Your task to perform on an android device: open app "Move to iOS" (install if not already installed) and go to login screen Image 0: 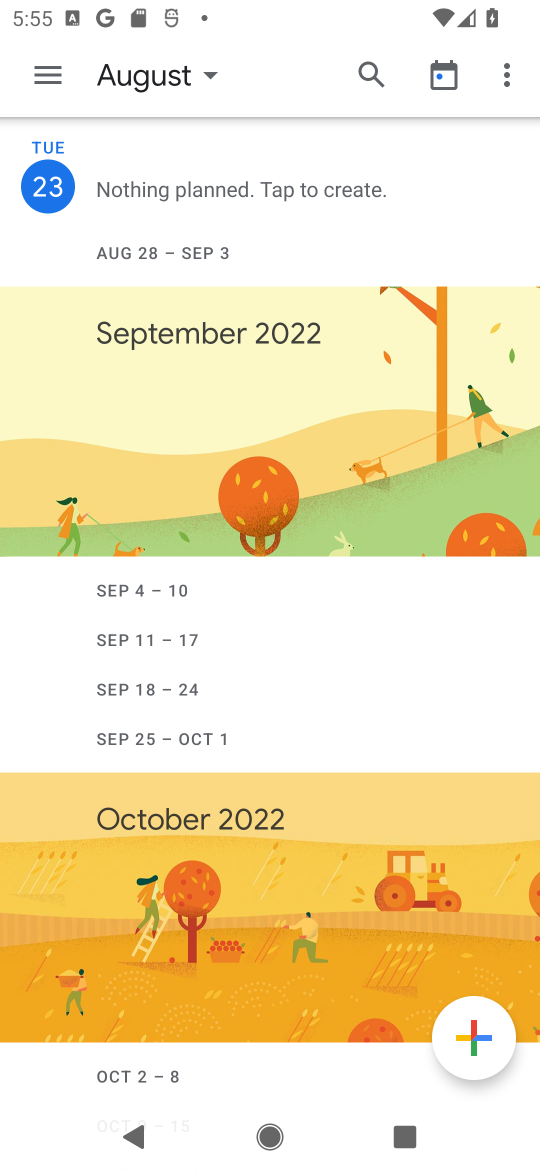
Step 0: press home button
Your task to perform on an android device: open app "Move to iOS" (install if not already installed) and go to login screen Image 1: 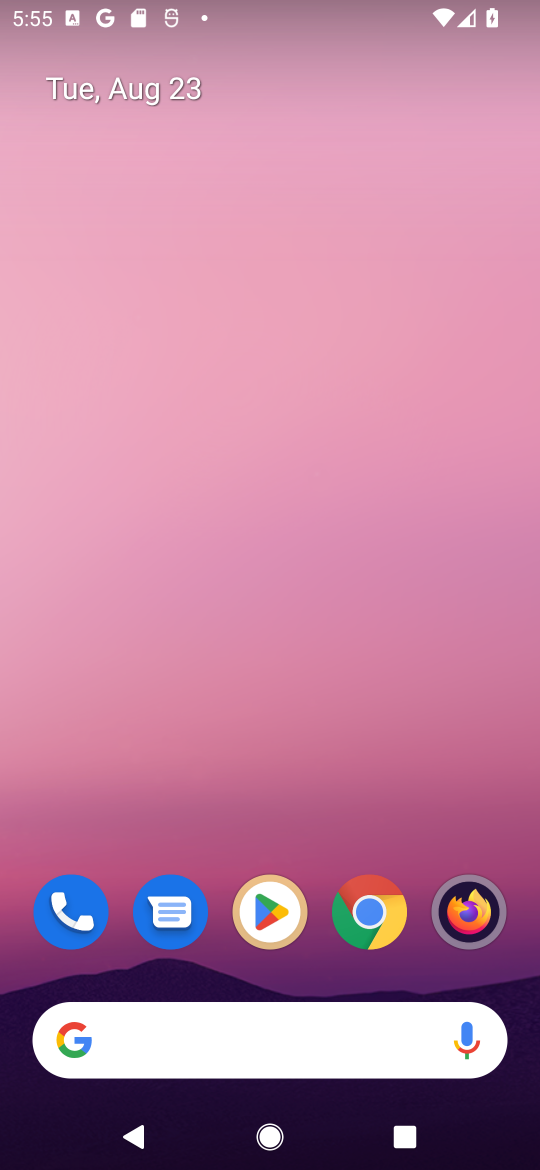
Step 1: click (265, 901)
Your task to perform on an android device: open app "Move to iOS" (install if not already installed) and go to login screen Image 2: 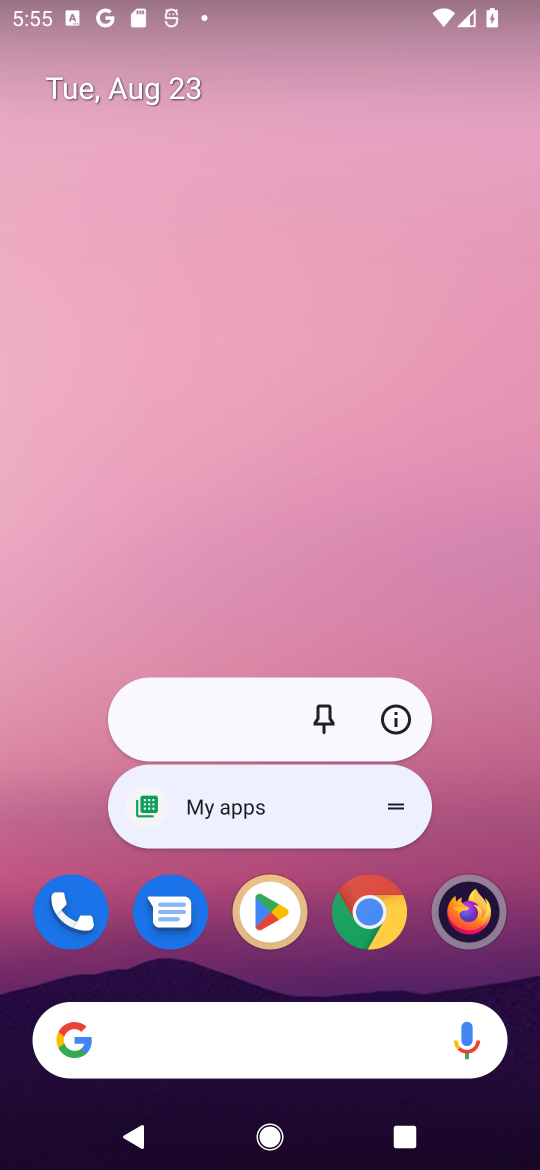
Step 2: click (265, 901)
Your task to perform on an android device: open app "Move to iOS" (install if not already installed) and go to login screen Image 3: 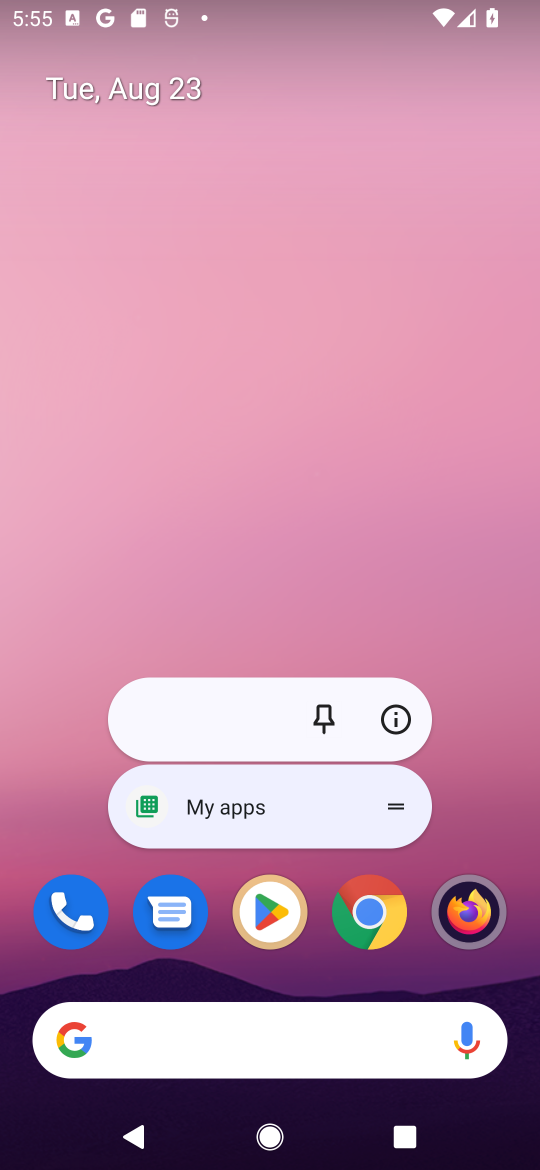
Step 3: click (265, 901)
Your task to perform on an android device: open app "Move to iOS" (install if not already installed) and go to login screen Image 4: 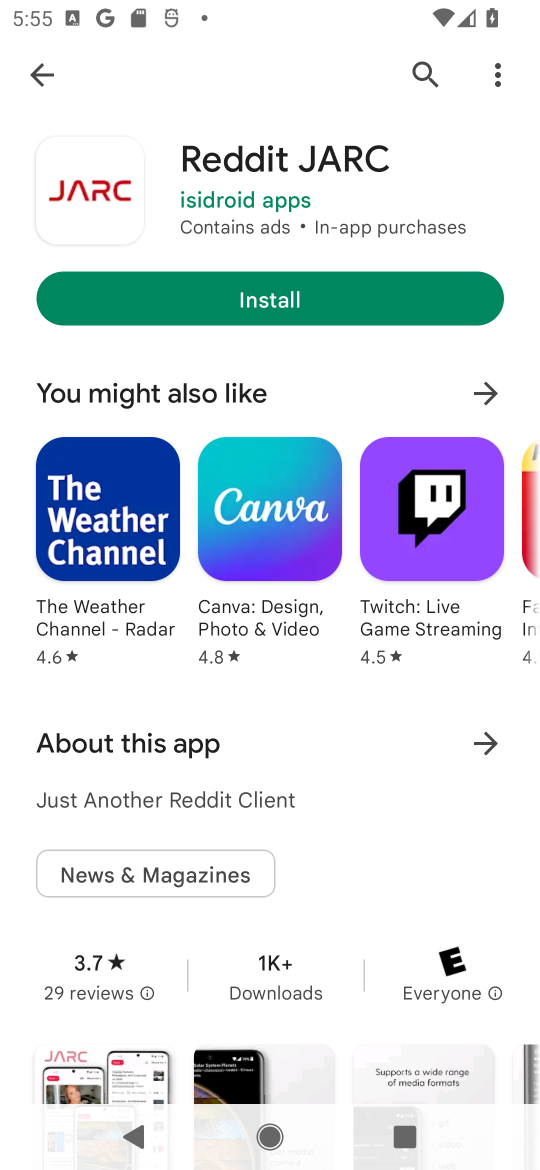
Step 4: click (272, 919)
Your task to perform on an android device: open app "Move to iOS" (install if not already installed) and go to login screen Image 5: 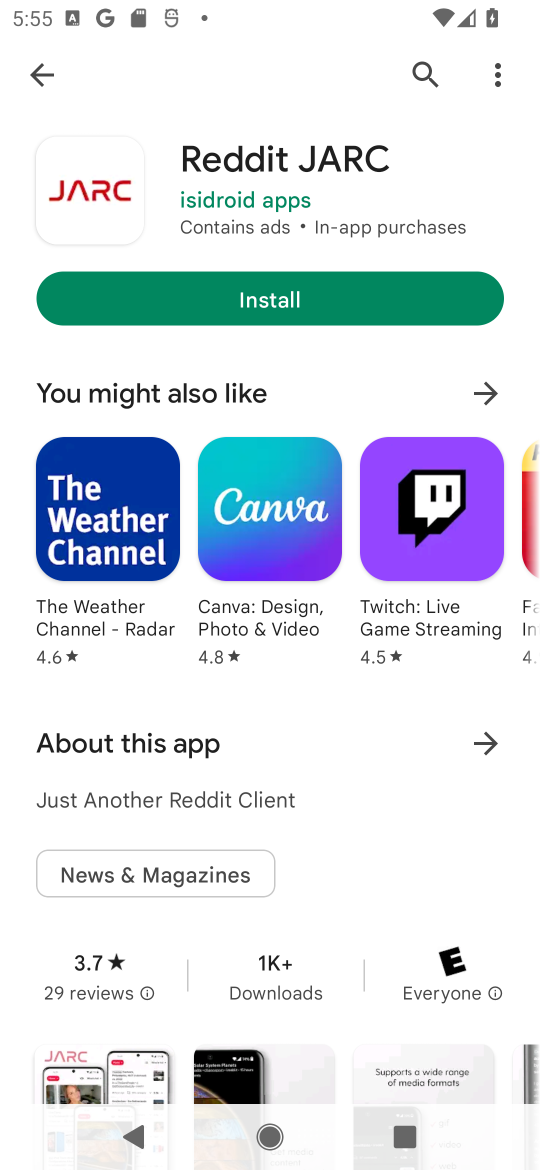
Step 5: click (46, 84)
Your task to perform on an android device: open app "Move to iOS" (install if not already installed) and go to login screen Image 6: 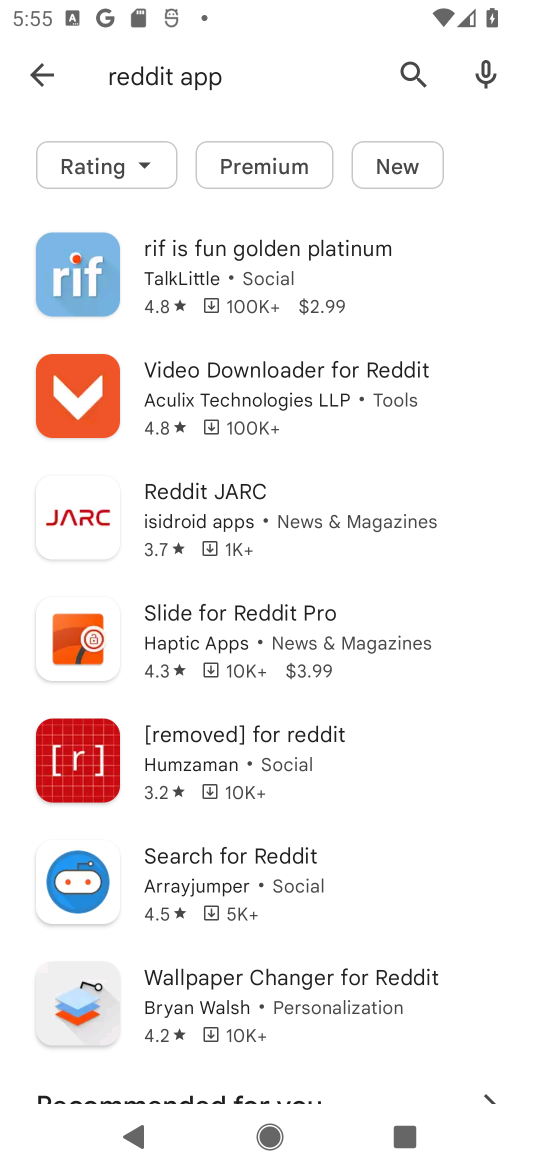
Step 6: click (46, 84)
Your task to perform on an android device: open app "Move to iOS" (install if not already installed) and go to login screen Image 7: 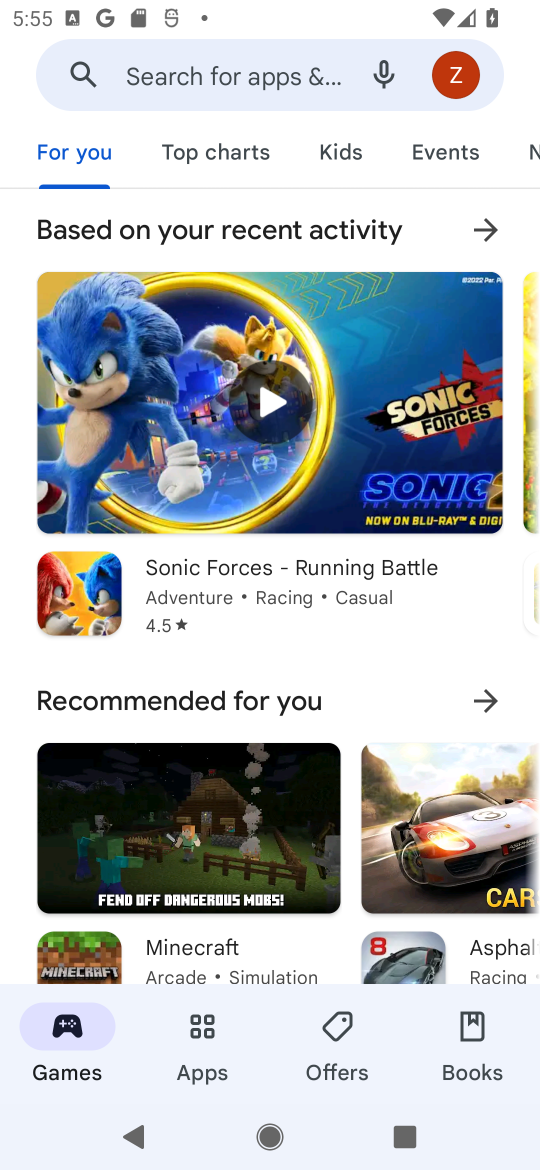
Step 7: click (229, 57)
Your task to perform on an android device: open app "Move to iOS" (install if not already installed) and go to login screen Image 8: 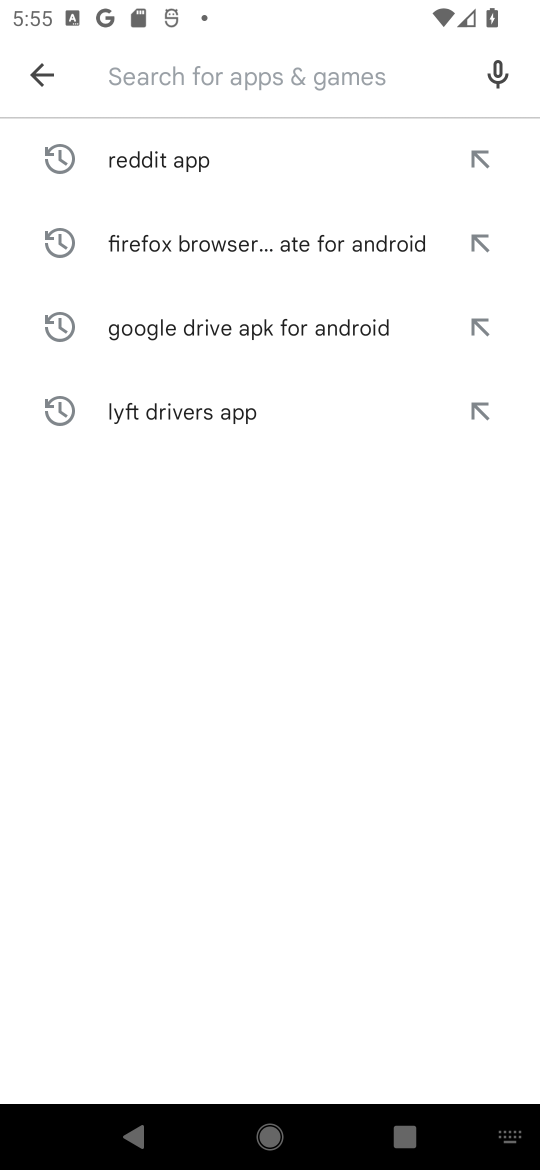
Step 8: type "Move to iOS "
Your task to perform on an android device: open app "Move to iOS" (install if not already installed) and go to login screen Image 9: 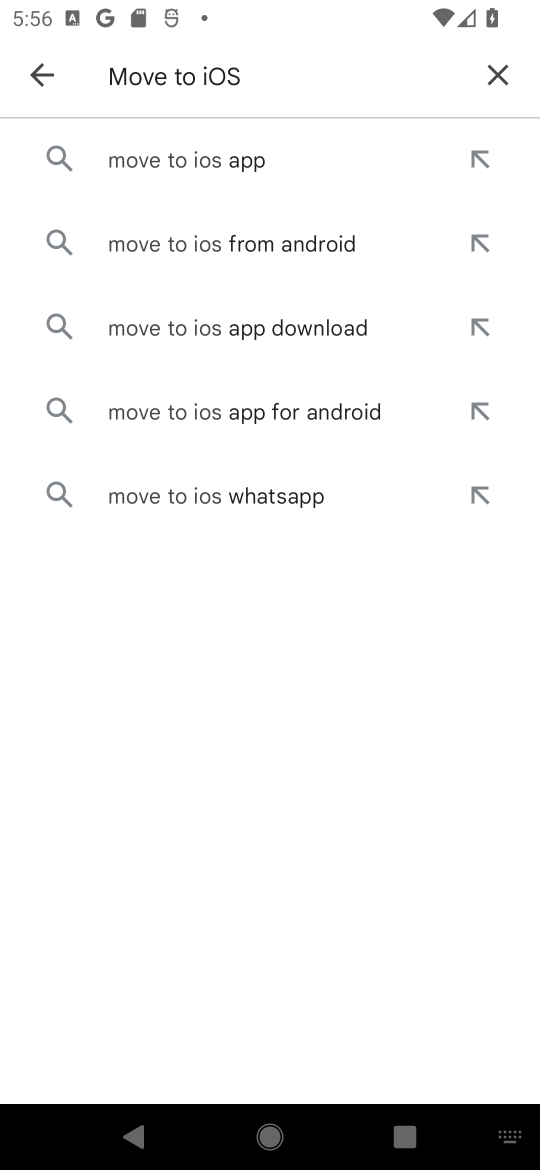
Step 9: click (213, 134)
Your task to perform on an android device: open app "Move to iOS" (install if not already installed) and go to login screen Image 10: 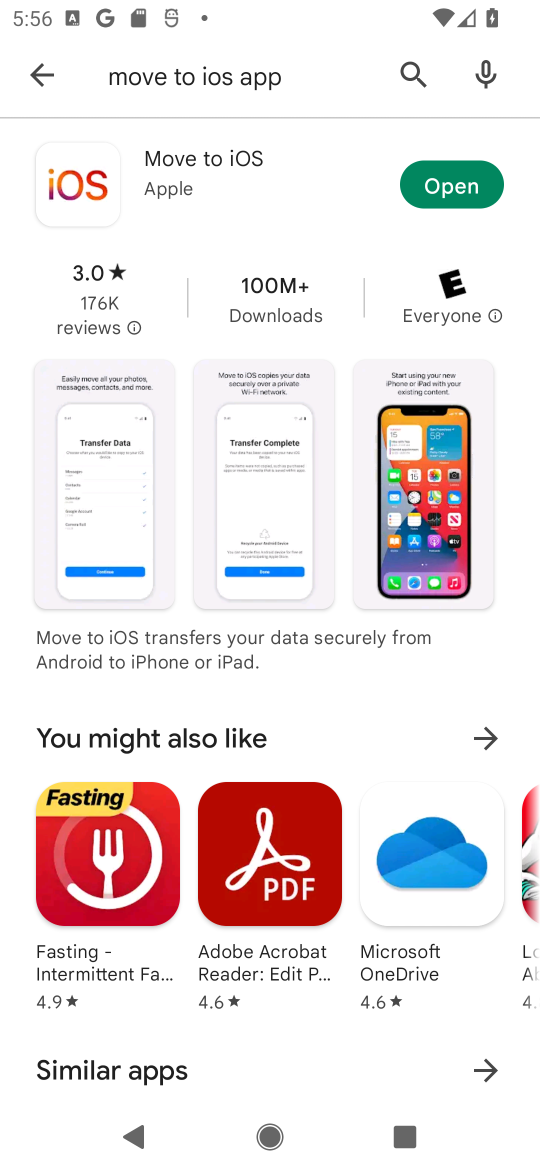
Step 10: click (417, 166)
Your task to perform on an android device: open app "Move to iOS" (install if not already installed) and go to login screen Image 11: 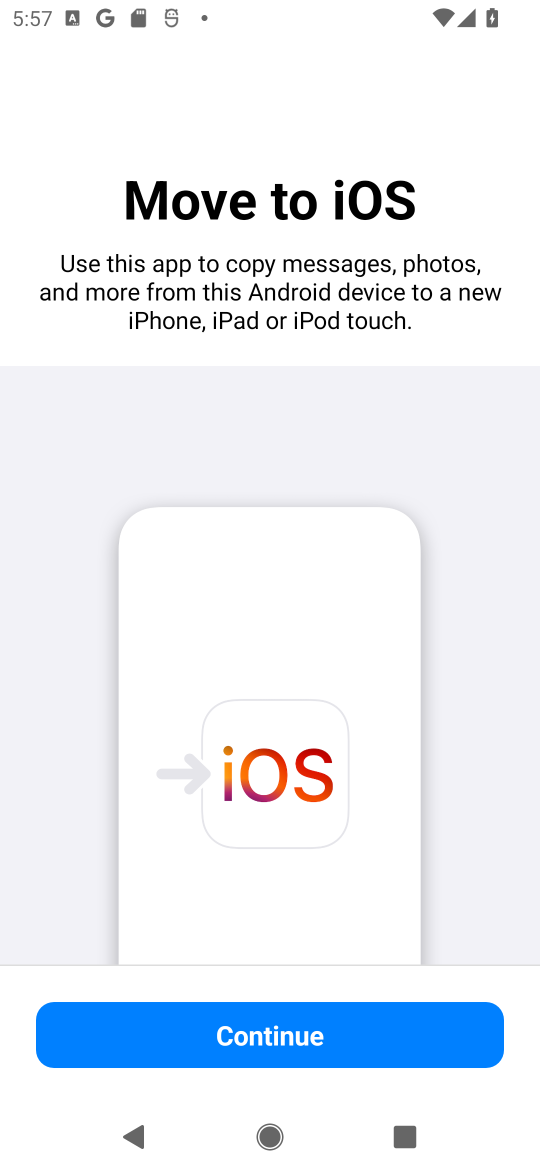
Step 11: click (321, 1040)
Your task to perform on an android device: open app "Move to iOS" (install if not already installed) and go to login screen Image 12: 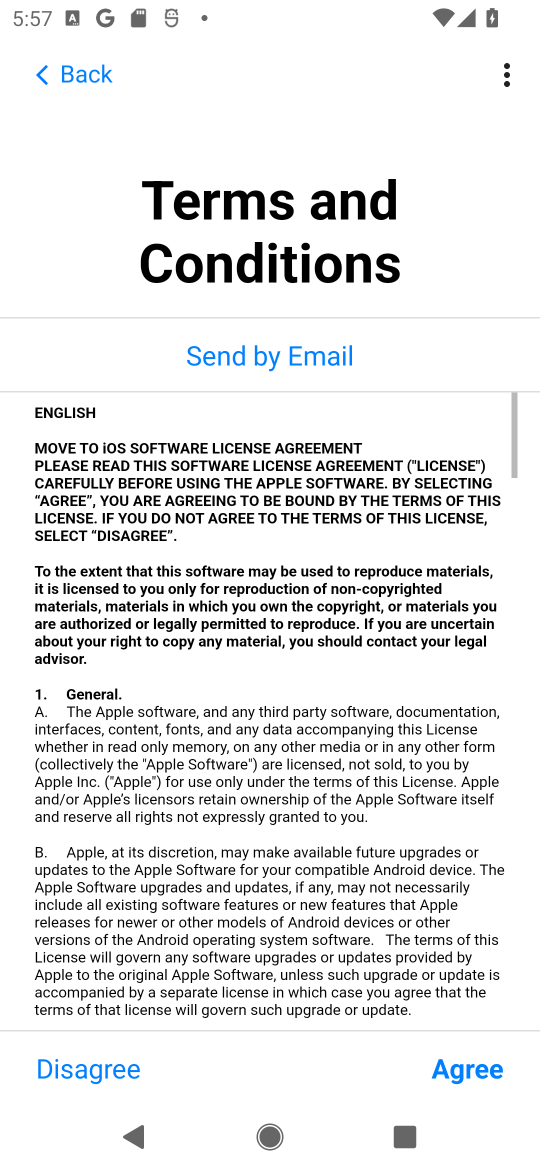
Step 12: task complete